Your task to perform on an android device: open chrome and create a bookmark for the current page Image 0: 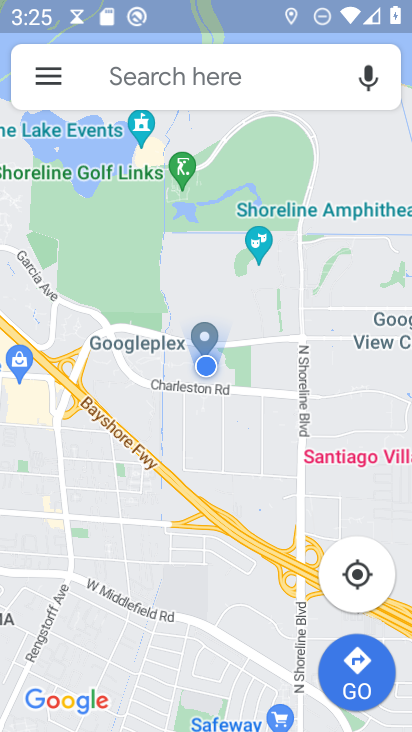
Step 0: press home button
Your task to perform on an android device: open chrome and create a bookmark for the current page Image 1: 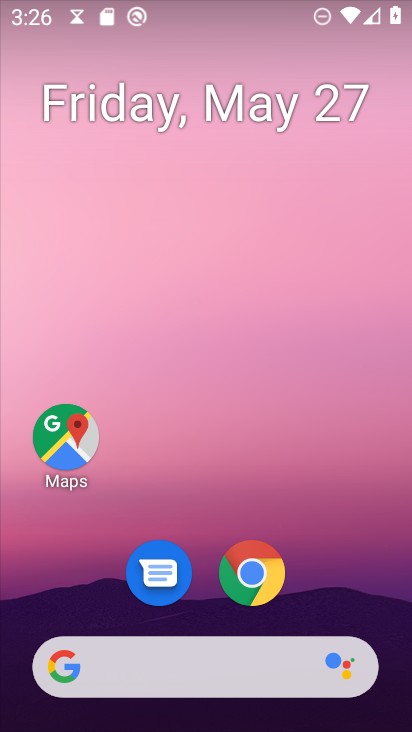
Step 1: click (258, 584)
Your task to perform on an android device: open chrome and create a bookmark for the current page Image 2: 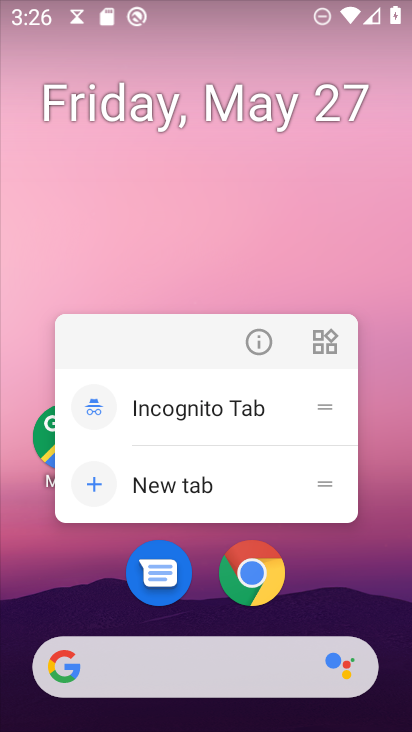
Step 2: click (248, 573)
Your task to perform on an android device: open chrome and create a bookmark for the current page Image 3: 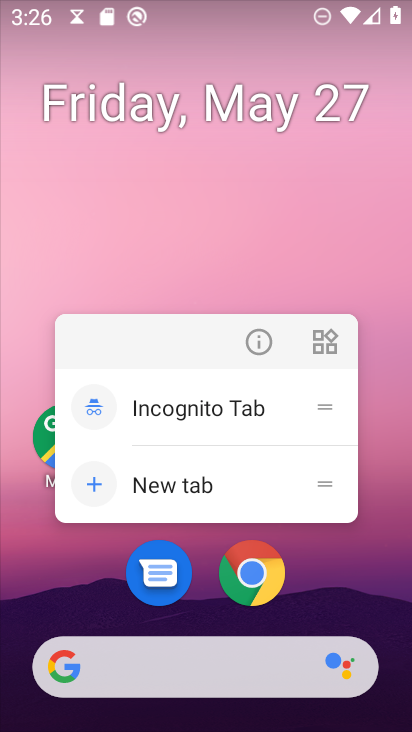
Step 3: click (241, 564)
Your task to perform on an android device: open chrome and create a bookmark for the current page Image 4: 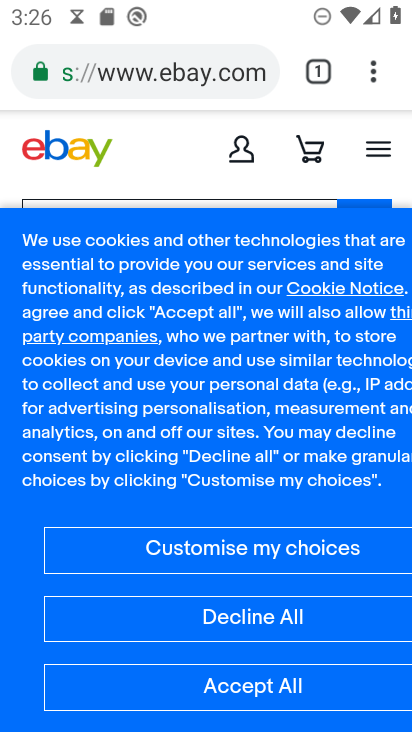
Step 4: click (364, 76)
Your task to perform on an android device: open chrome and create a bookmark for the current page Image 5: 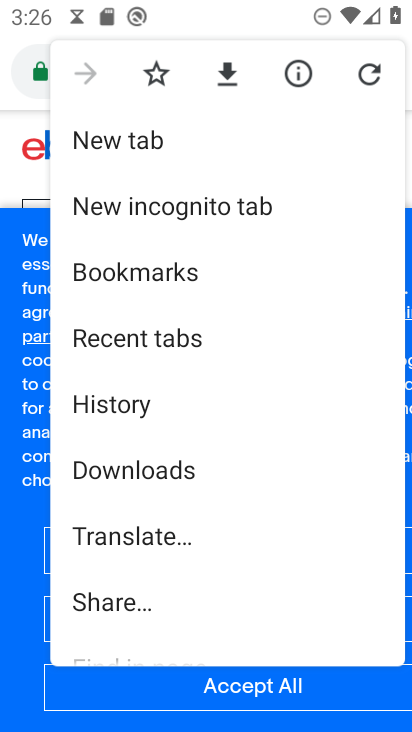
Step 5: click (153, 76)
Your task to perform on an android device: open chrome and create a bookmark for the current page Image 6: 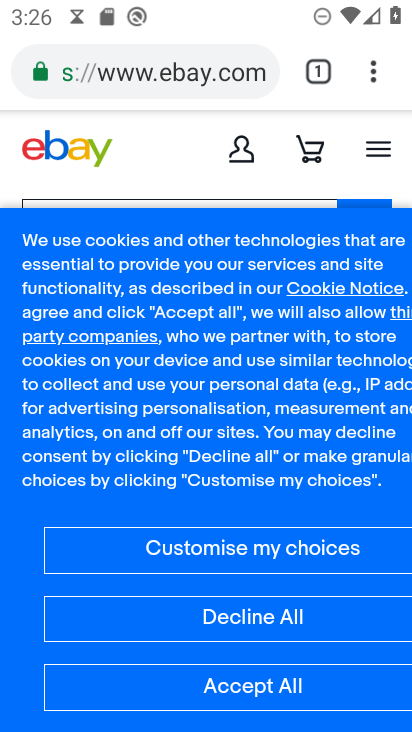
Step 6: task complete